Your task to perform on an android device: toggle wifi Image 0: 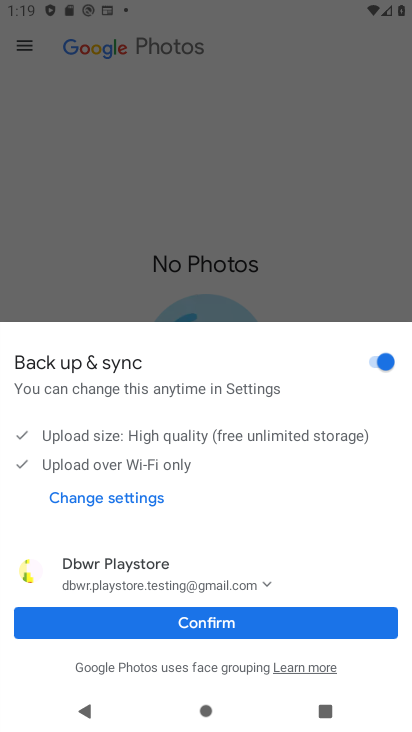
Step 0: press back button
Your task to perform on an android device: toggle wifi Image 1: 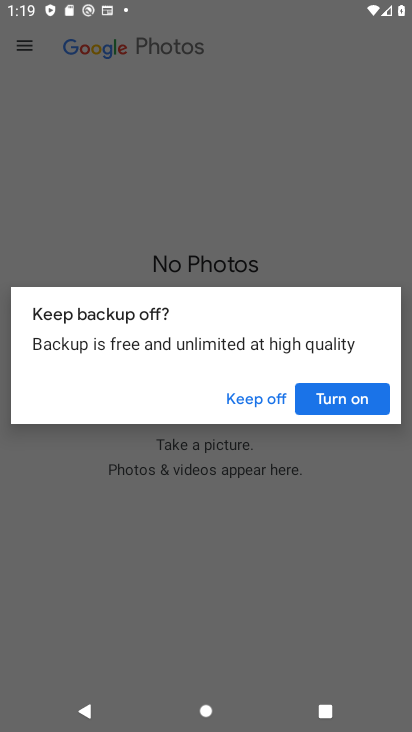
Step 1: press home button
Your task to perform on an android device: toggle wifi Image 2: 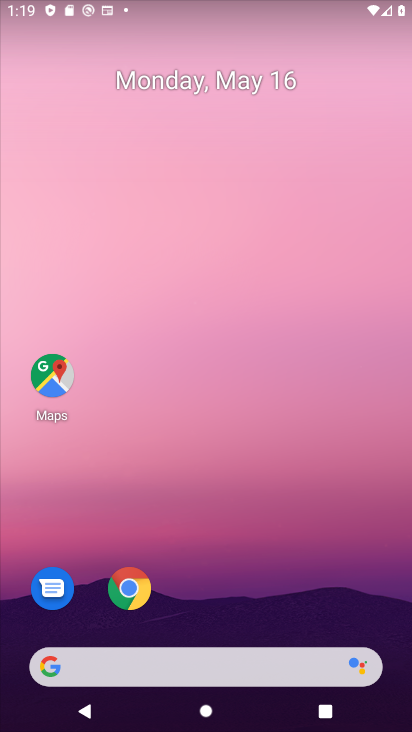
Step 2: drag from (276, 587) to (229, 55)
Your task to perform on an android device: toggle wifi Image 3: 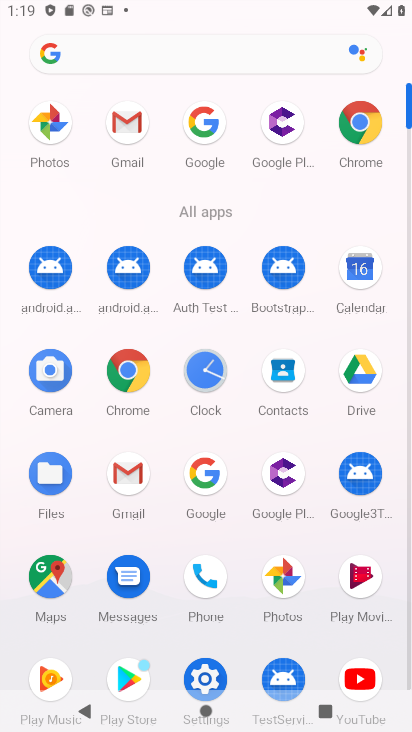
Step 3: drag from (230, 623) to (233, 452)
Your task to perform on an android device: toggle wifi Image 4: 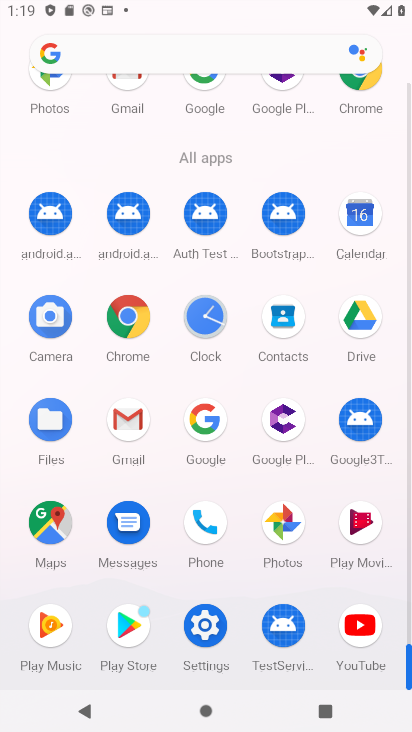
Step 4: click (208, 623)
Your task to perform on an android device: toggle wifi Image 5: 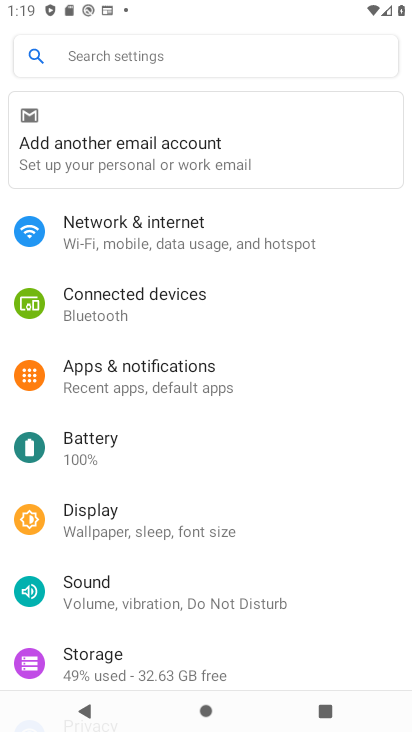
Step 5: click (137, 223)
Your task to perform on an android device: toggle wifi Image 6: 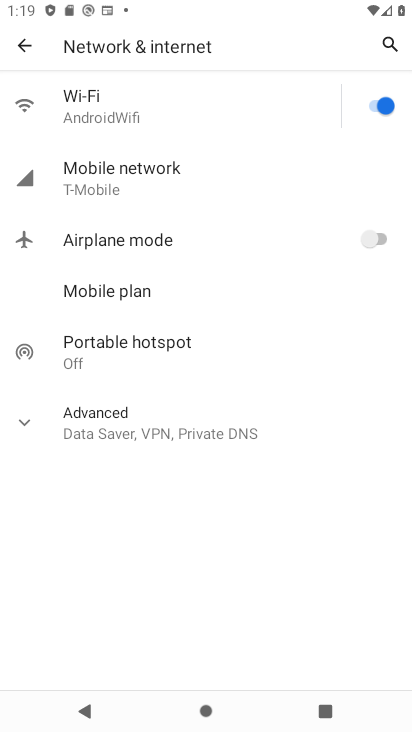
Step 6: click (385, 107)
Your task to perform on an android device: toggle wifi Image 7: 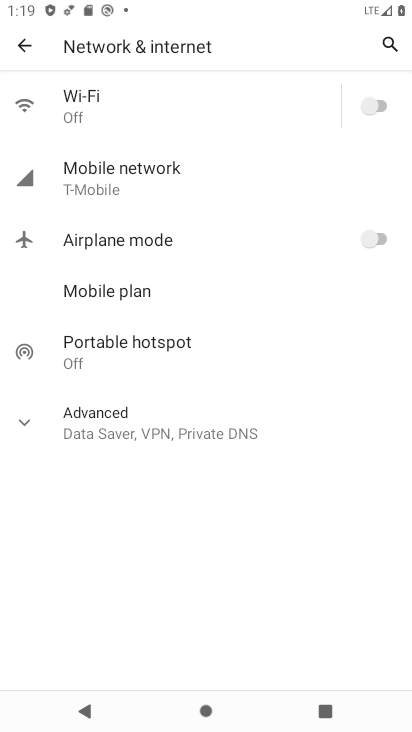
Step 7: task complete